Your task to perform on an android device: Open Chrome and go to settings Image 0: 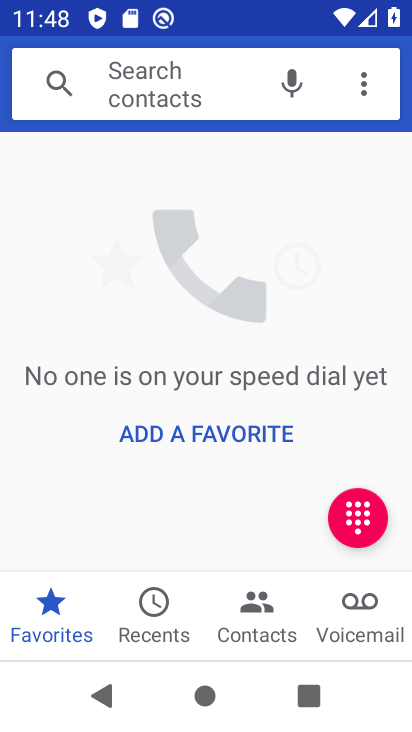
Step 0: press home button
Your task to perform on an android device: Open Chrome and go to settings Image 1: 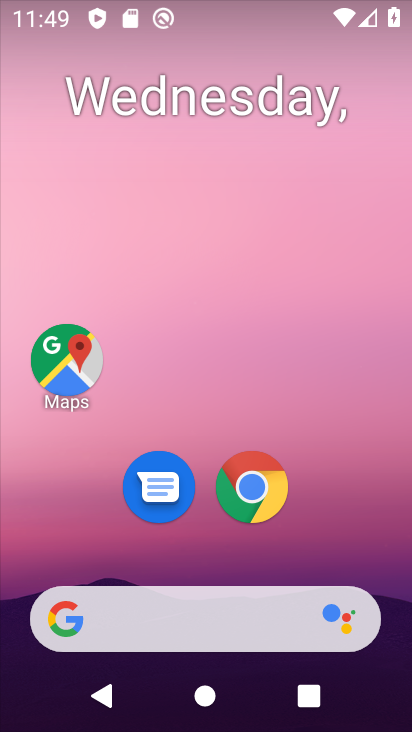
Step 1: click (245, 507)
Your task to perform on an android device: Open Chrome and go to settings Image 2: 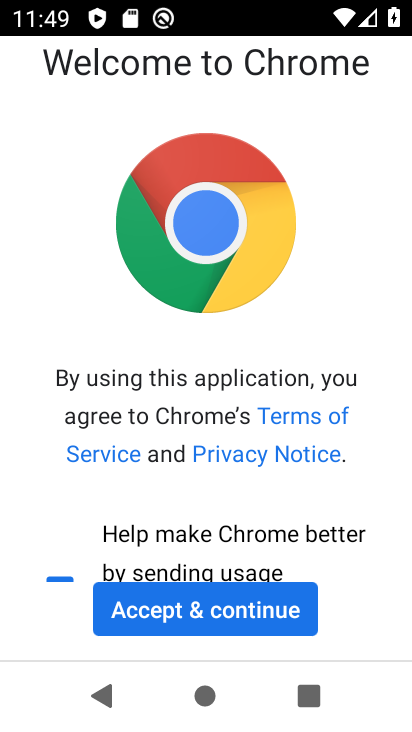
Step 2: click (232, 618)
Your task to perform on an android device: Open Chrome and go to settings Image 3: 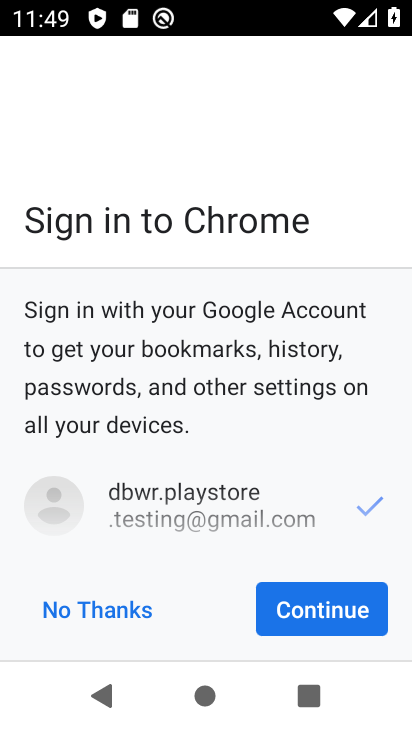
Step 3: click (290, 606)
Your task to perform on an android device: Open Chrome and go to settings Image 4: 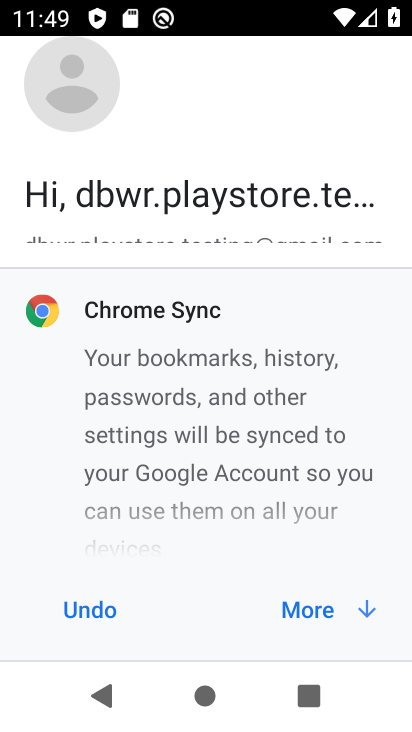
Step 4: click (290, 606)
Your task to perform on an android device: Open Chrome and go to settings Image 5: 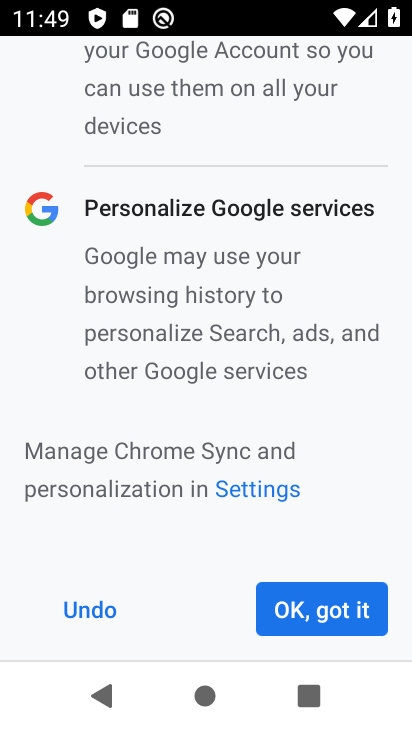
Step 5: click (290, 606)
Your task to perform on an android device: Open Chrome and go to settings Image 6: 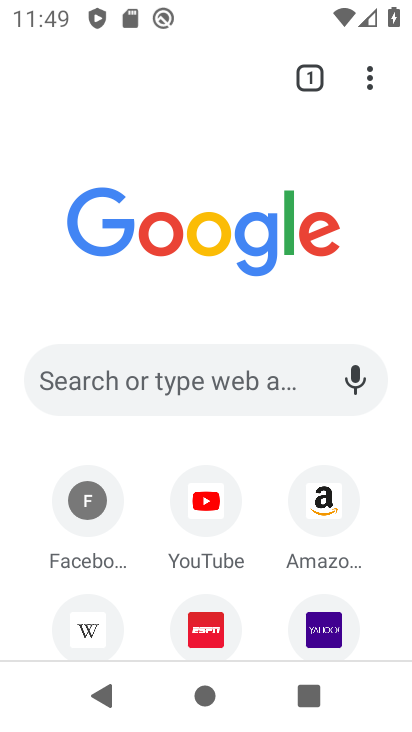
Step 6: click (373, 68)
Your task to perform on an android device: Open Chrome and go to settings Image 7: 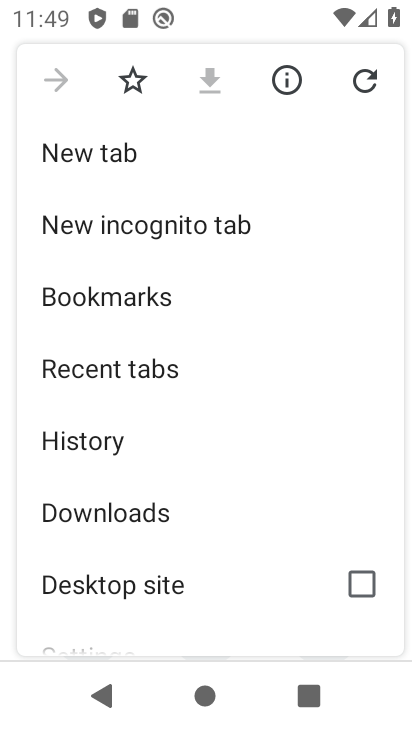
Step 7: drag from (161, 561) to (243, 235)
Your task to perform on an android device: Open Chrome and go to settings Image 8: 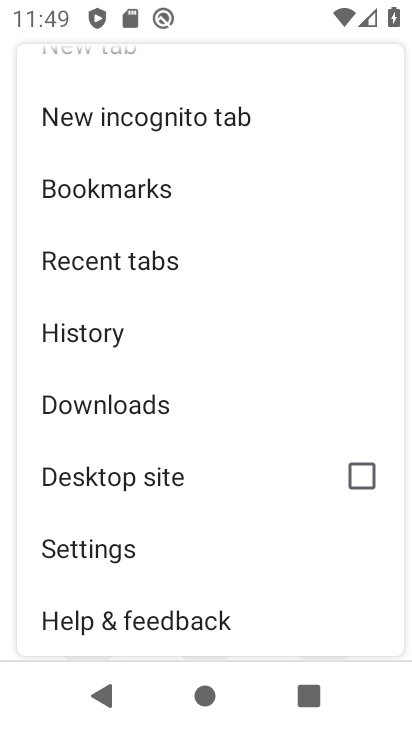
Step 8: click (125, 555)
Your task to perform on an android device: Open Chrome and go to settings Image 9: 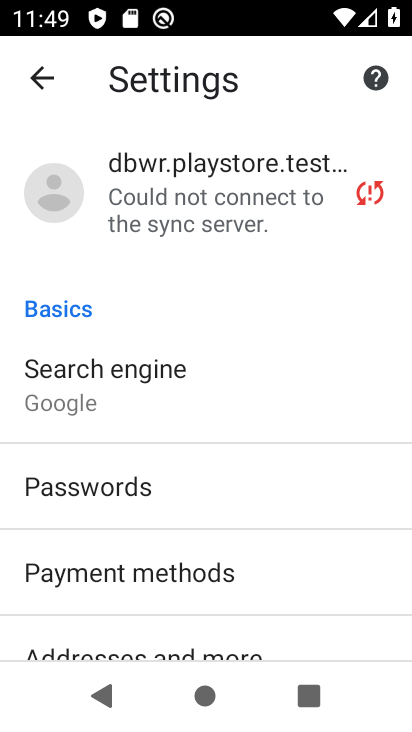
Step 9: task complete